Your task to perform on an android device: toggle sleep mode Image 0: 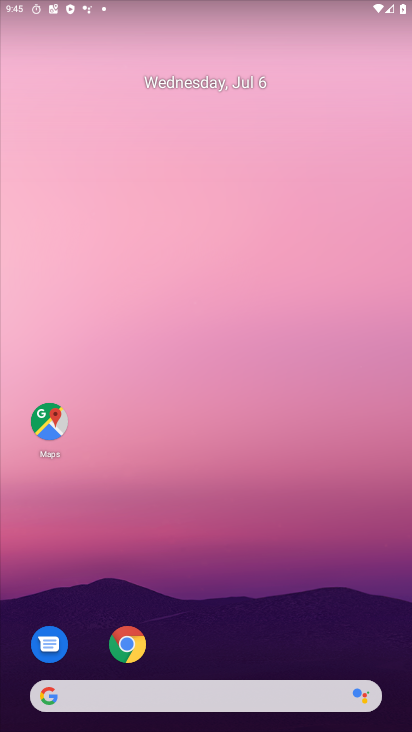
Step 0: drag from (125, 712) to (104, 227)
Your task to perform on an android device: toggle sleep mode Image 1: 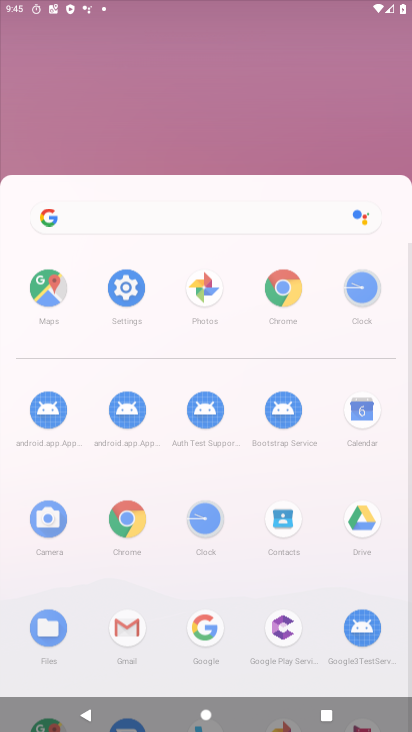
Step 1: drag from (195, 550) to (152, 198)
Your task to perform on an android device: toggle sleep mode Image 2: 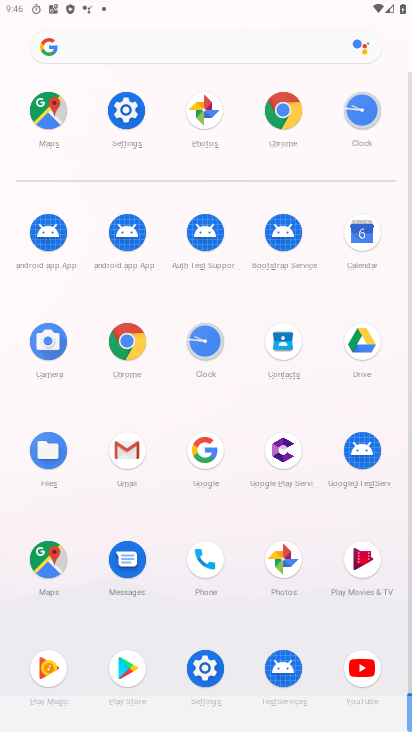
Step 2: click (205, 673)
Your task to perform on an android device: toggle sleep mode Image 3: 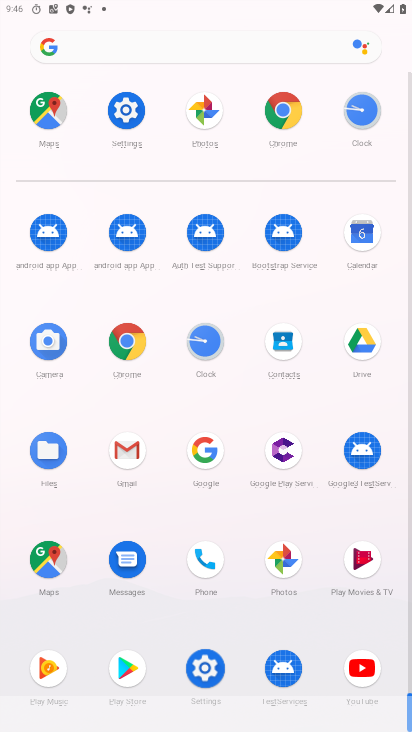
Step 3: click (204, 673)
Your task to perform on an android device: toggle sleep mode Image 4: 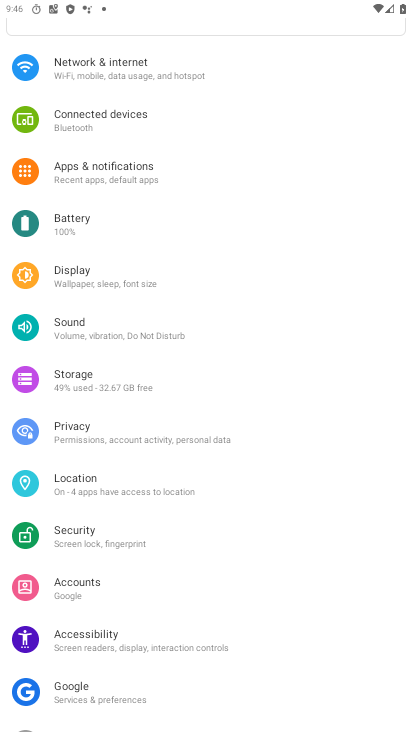
Step 4: click (87, 287)
Your task to perform on an android device: toggle sleep mode Image 5: 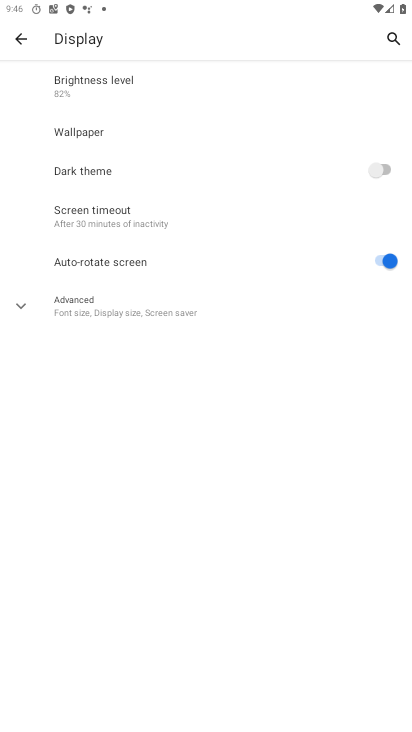
Step 5: click (111, 227)
Your task to perform on an android device: toggle sleep mode Image 6: 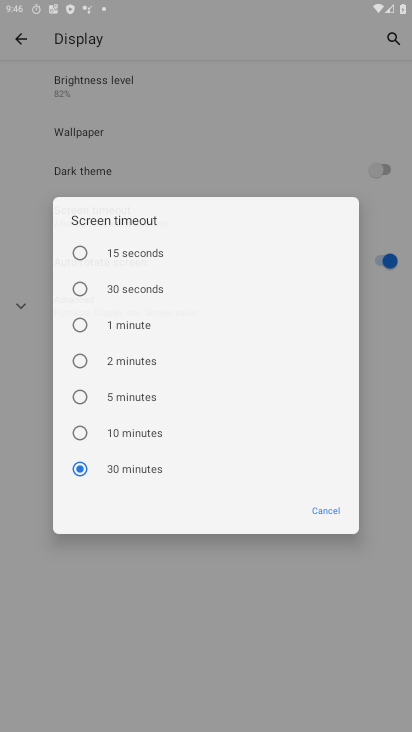
Step 6: click (108, 217)
Your task to perform on an android device: toggle sleep mode Image 7: 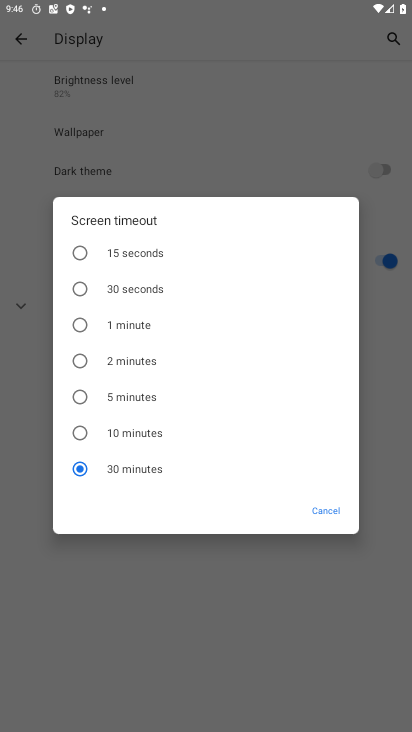
Step 7: click (119, 215)
Your task to perform on an android device: toggle sleep mode Image 8: 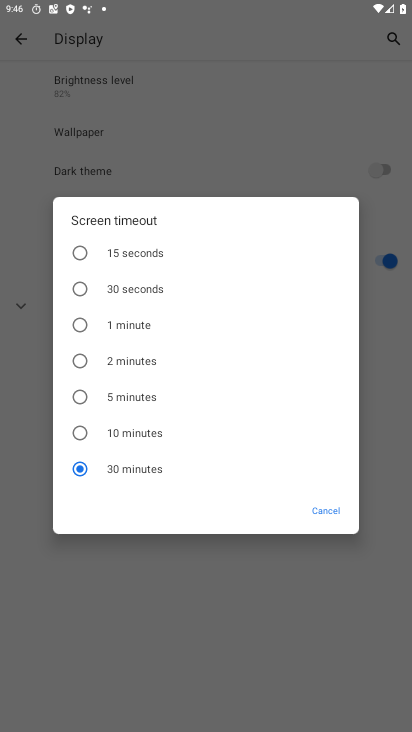
Step 8: click (88, 361)
Your task to perform on an android device: toggle sleep mode Image 9: 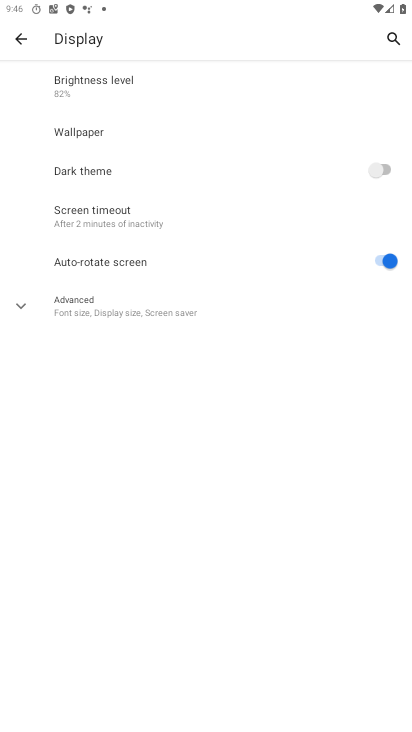
Step 9: click (98, 350)
Your task to perform on an android device: toggle sleep mode Image 10: 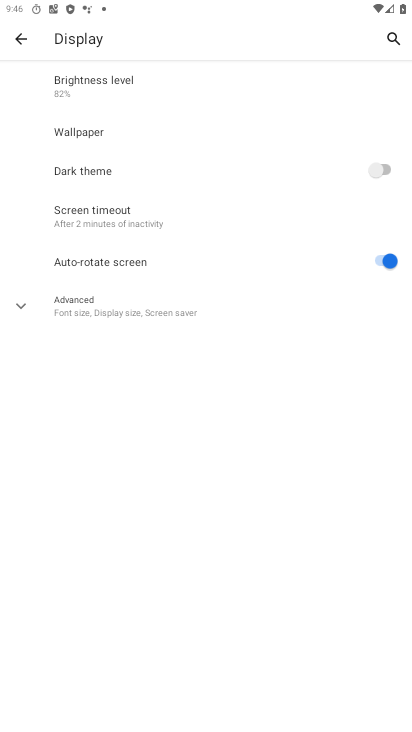
Step 10: task complete